Your task to perform on an android device: change keyboard looks Image 0: 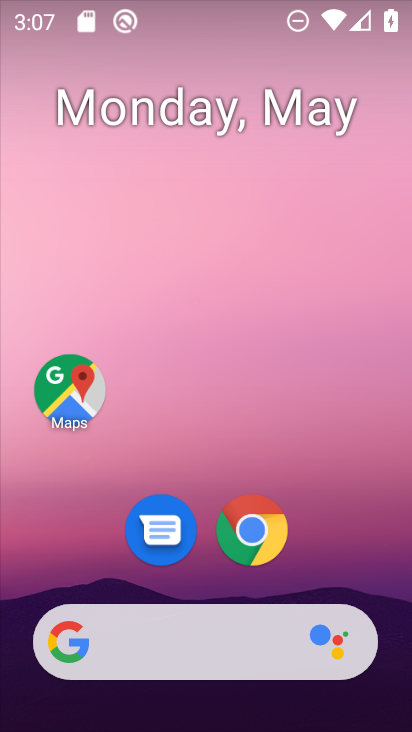
Step 0: drag from (206, 586) to (226, 30)
Your task to perform on an android device: change keyboard looks Image 1: 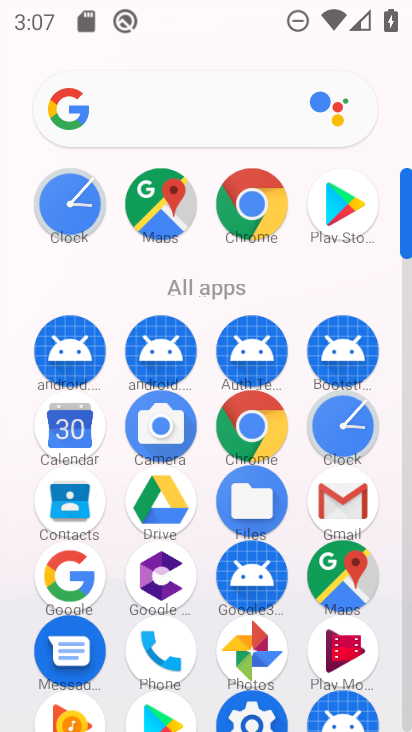
Step 1: click (252, 693)
Your task to perform on an android device: change keyboard looks Image 2: 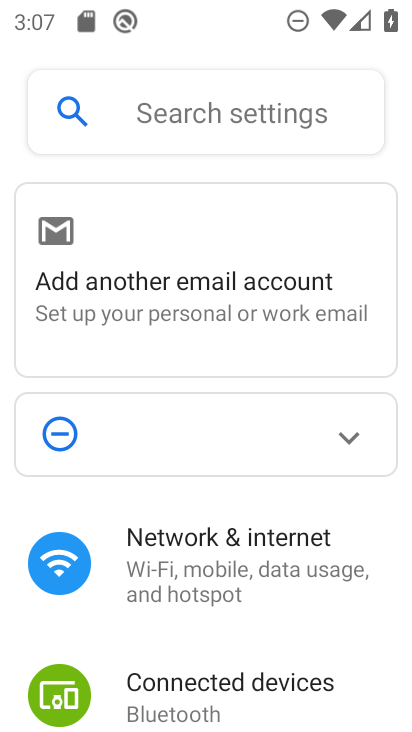
Step 2: drag from (252, 693) to (310, 11)
Your task to perform on an android device: change keyboard looks Image 3: 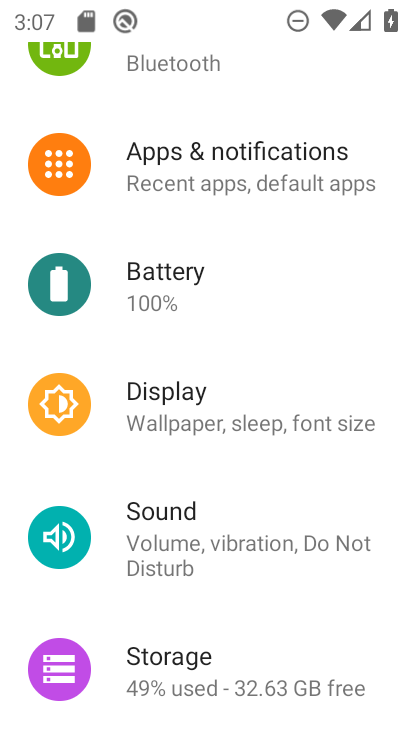
Step 3: drag from (105, 688) to (163, 93)
Your task to perform on an android device: change keyboard looks Image 4: 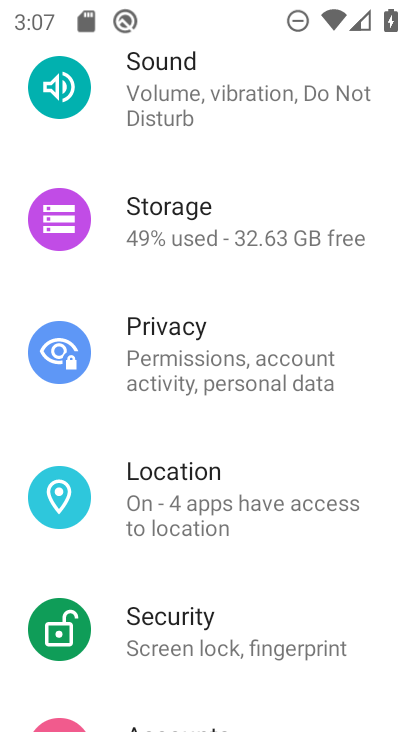
Step 4: drag from (139, 587) to (206, 67)
Your task to perform on an android device: change keyboard looks Image 5: 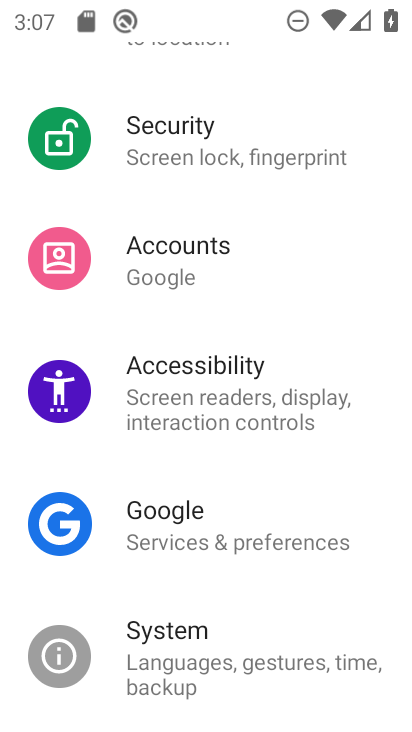
Step 5: drag from (195, 335) to (201, 125)
Your task to perform on an android device: change keyboard looks Image 6: 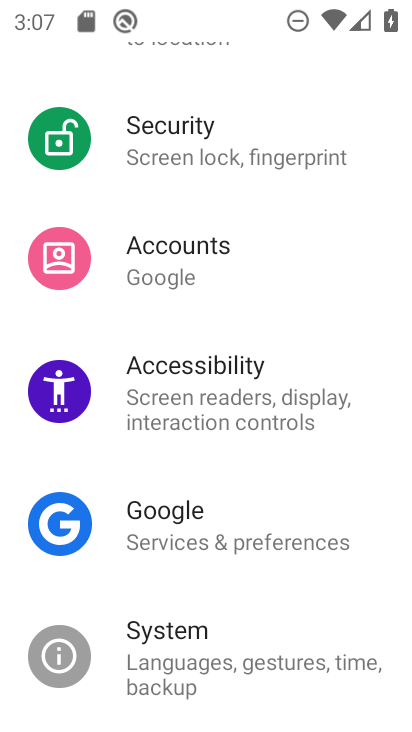
Step 6: click (267, 674)
Your task to perform on an android device: change keyboard looks Image 7: 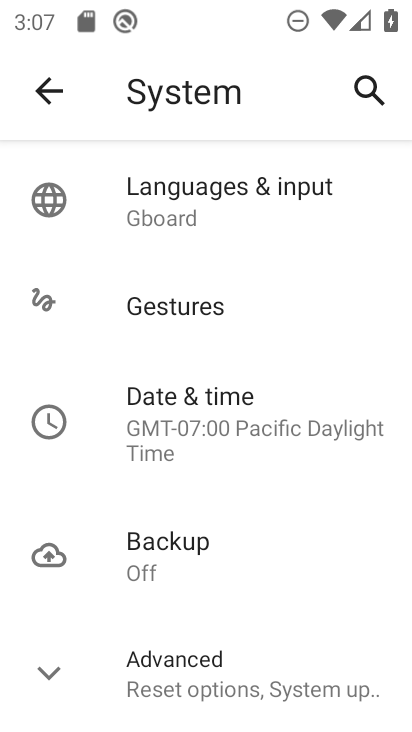
Step 7: drag from (409, 671) to (368, 137)
Your task to perform on an android device: change keyboard looks Image 8: 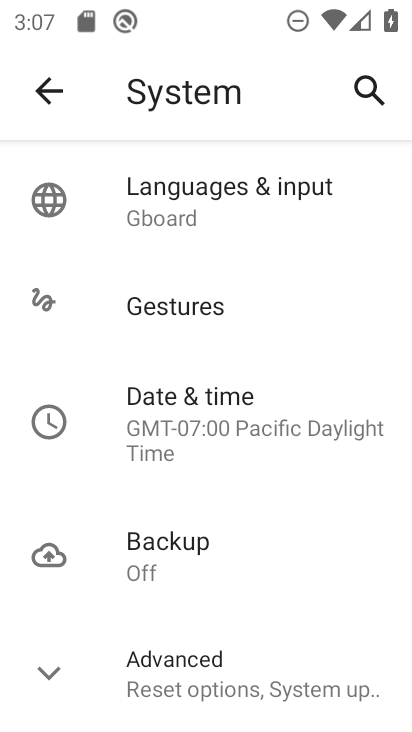
Step 8: drag from (134, 650) to (209, 91)
Your task to perform on an android device: change keyboard looks Image 9: 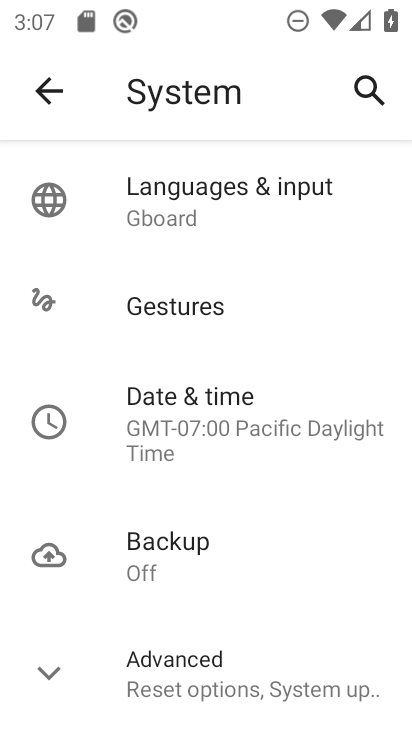
Step 9: click (71, 689)
Your task to perform on an android device: change keyboard looks Image 10: 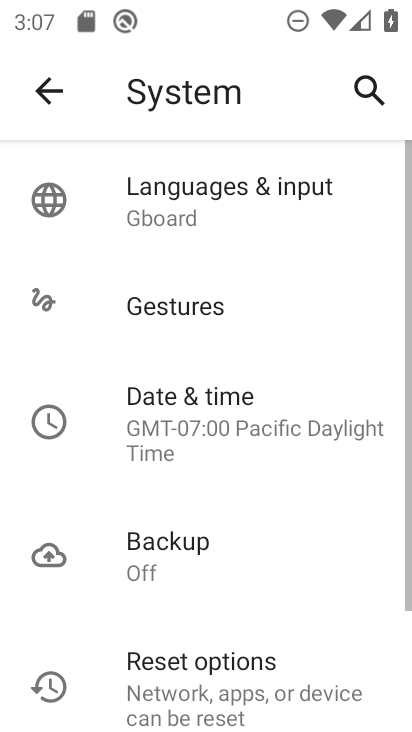
Step 10: drag from (71, 689) to (194, 69)
Your task to perform on an android device: change keyboard looks Image 11: 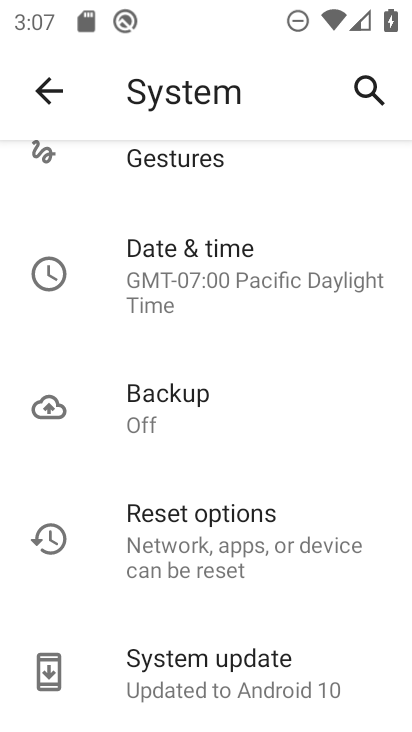
Step 11: drag from (78, 642) to (80, 289)
Your task to perform on an android device: change keyboard looks Image 12: 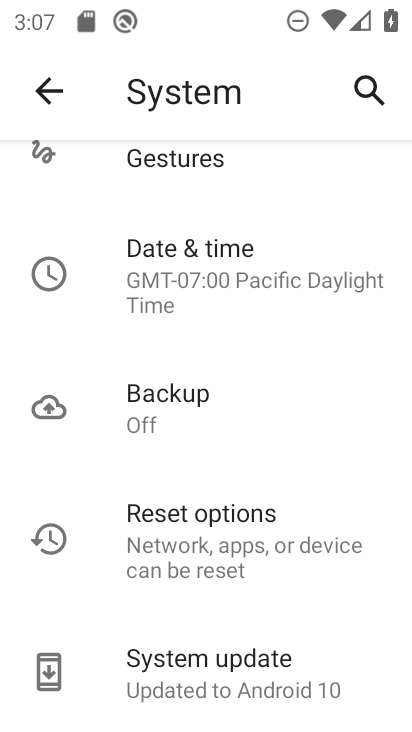
Step 12: drag from (133, 168) to (121, 697)
Your task to perform on an android device: change keyboard looks Image 13: 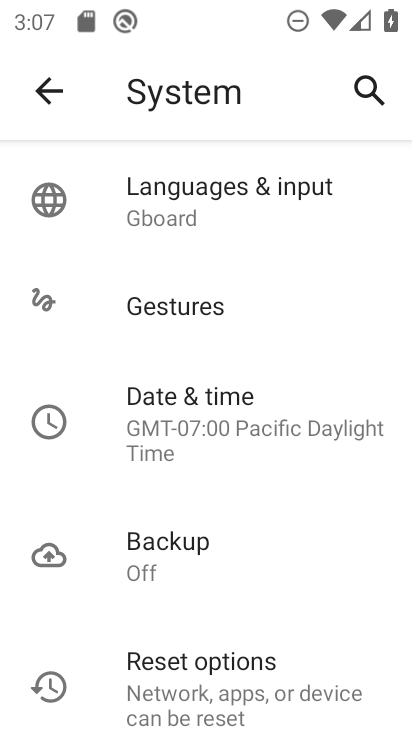
Step 13: drag from (158, 193) to (96, 713)
Your task to perform on an android device: change keyboard looks Image 14: 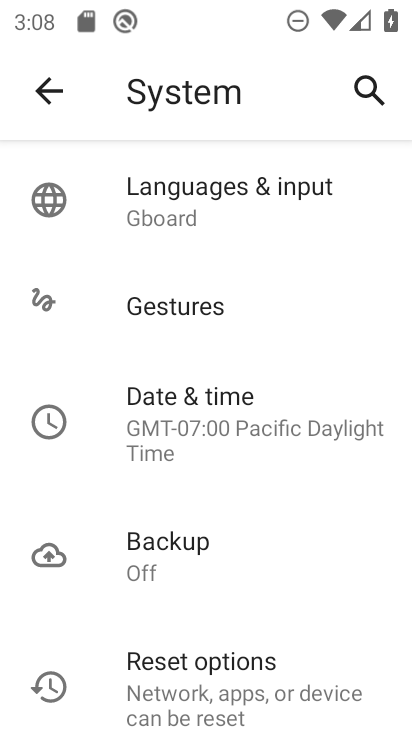
Step 14: click (156, 184)
Your task to perform on an android device: change keyboard looks Image 15: 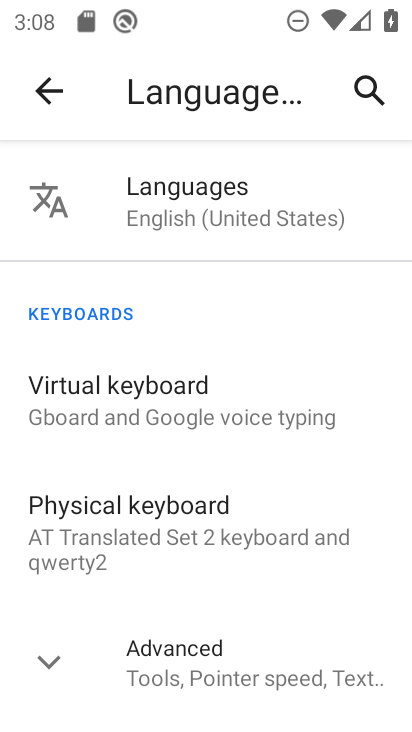
Step 15: click (191, 421)
Your task to perform on an android device: change keyboard looks Image 16: 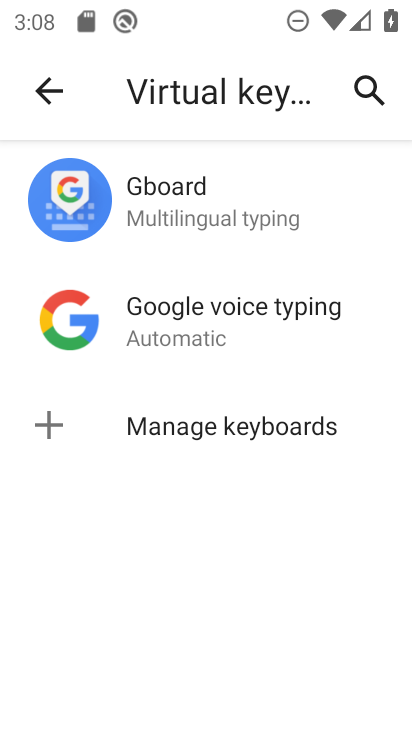
Step 16: click (138, 192)
Your task to perform on an android device: change keyboard looks Image 17: 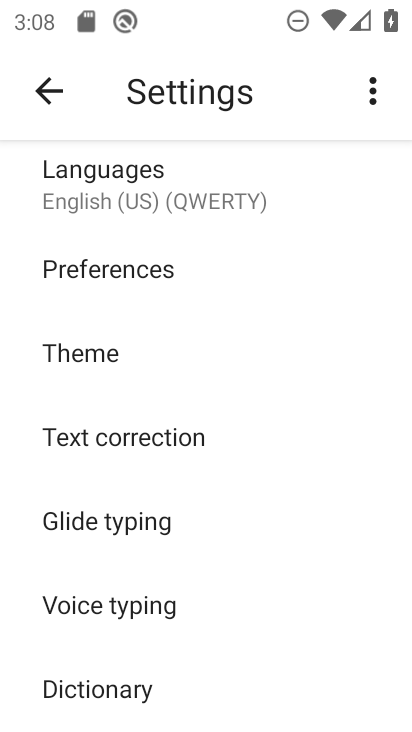
Step 17: click (155, 189)
Your task to perform on an android device: change keyboard looks Image 18: 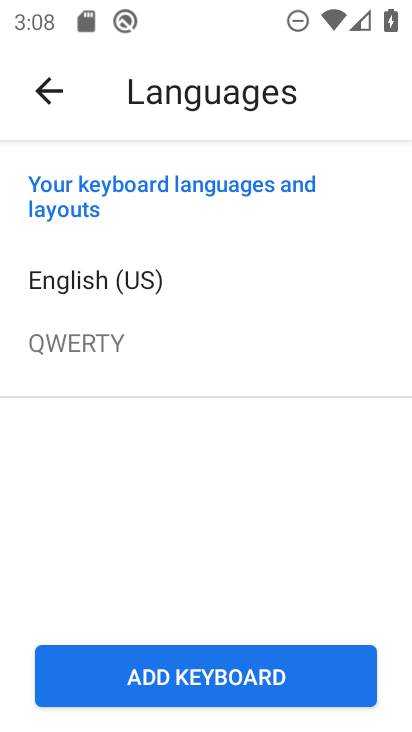
Step 18: click (56, 93)
Your task to perform on an android device: change keyboard looks Image 19: 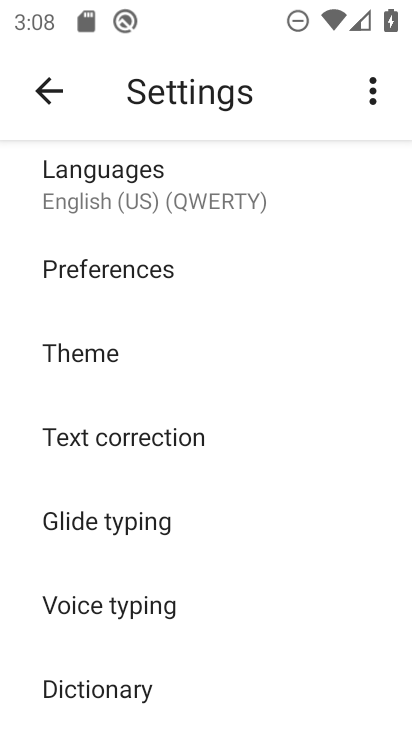
Step 19: click (100, 340)
Your task to perform on an android device: change keyboard looks Image 20: 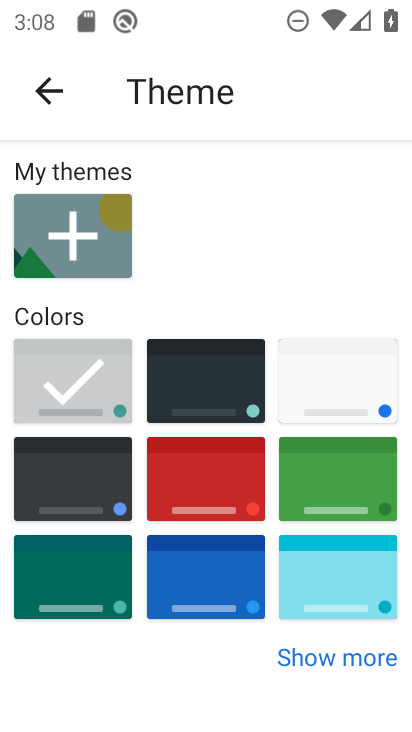
Step 20: click (331, 483)
Your task to perform on an android device: change keyboard looks Image 21: 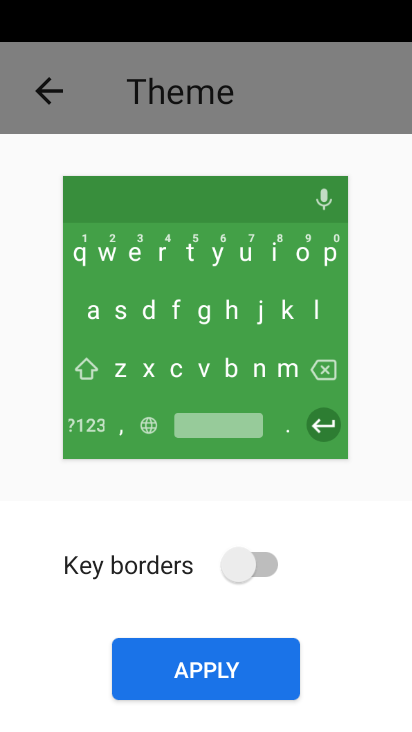
Step 21: click (174, 654)
Your task to perform on an android device: change keyboard looks Image 22: 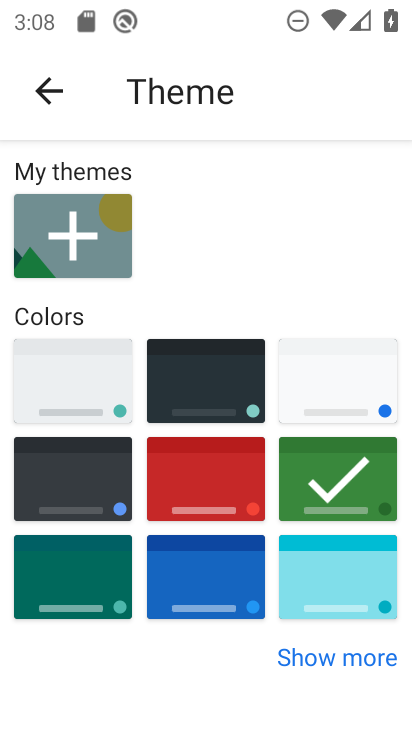
Step 22: task complete